Your task to perform on an android device: Go to Android settings Image 0: 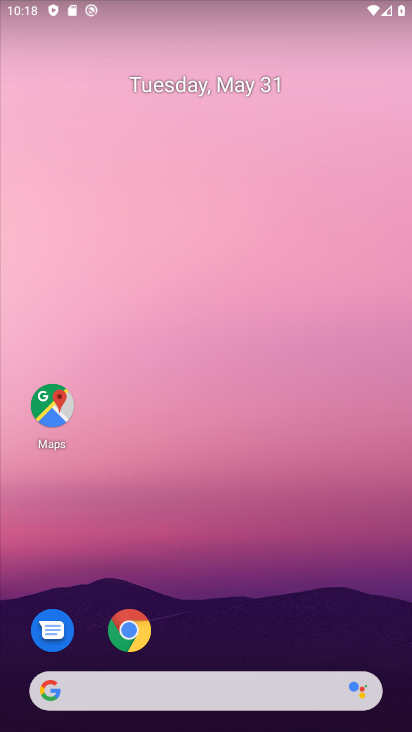
Step 0: drag from (238, 556) to (304, 192)
Your task to perform on an android device: Go to Android settings Image 1: 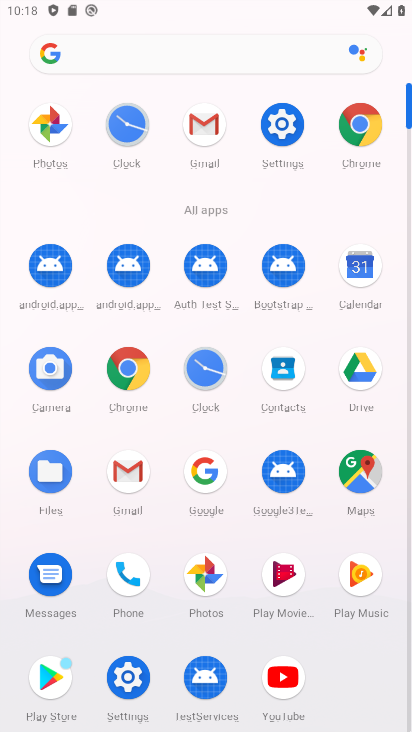
Step 1: click (294, 125)
Your task to perform on an android device: Go to Android settings Image 2: 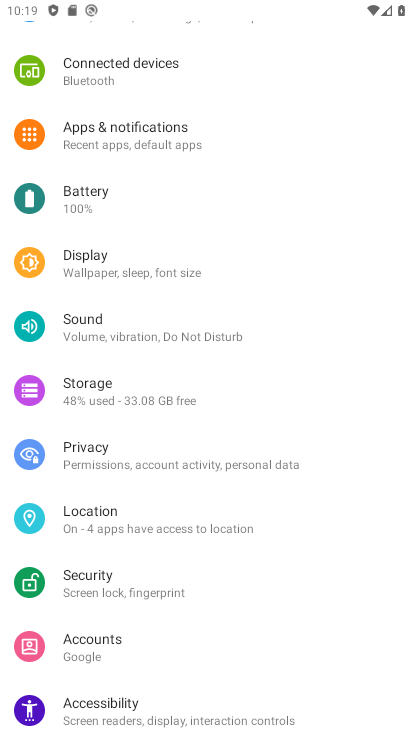
Step 2: task complete